Your task to perform on an android device: toggle sleep mode Image 0: 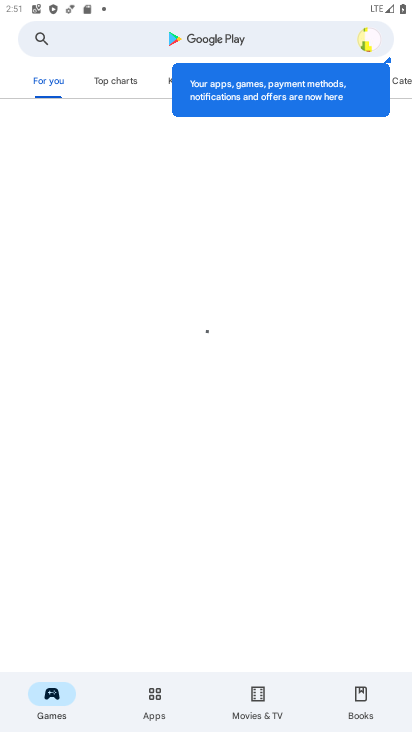
Step 0: press home button
Your task to perform on an android device: toggle sleep mode Image 1: 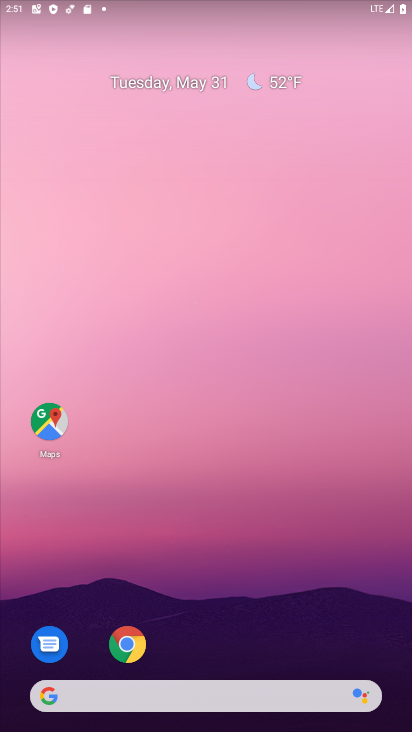
Step 1: drag from (291, 622) to (239, 95)
Your task to perform on an android device: toggle sleep mode Image 2: 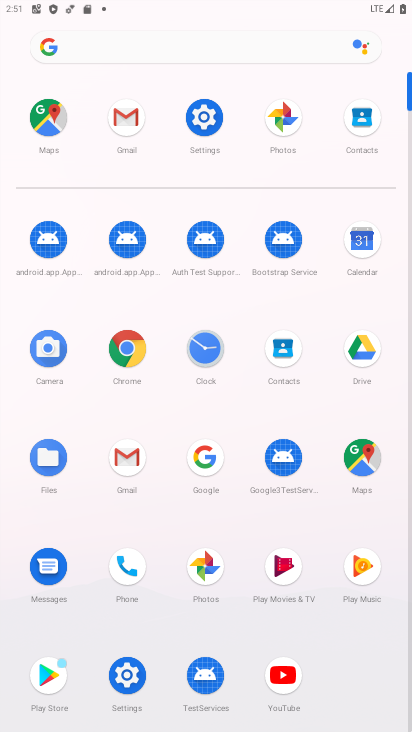
Step 2: click (214, 121)
Your task to perform on an android device: toggle sleep mode Image 3: 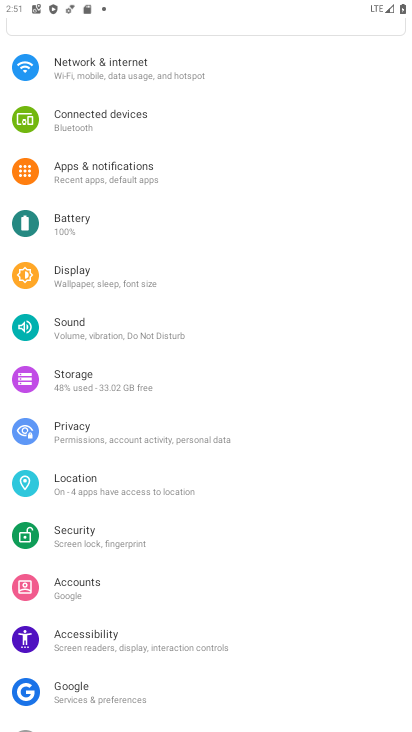
Step 3: click (95, 282)
Your task to perform on an android device: toggle sleep mode Image 4: 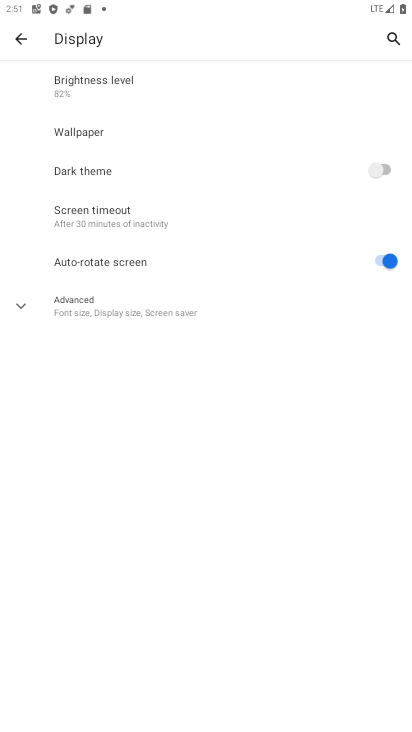
Step 4: task complete